Your task to perform on an android device: Clear the cart on walmart.com. Search for bose soundsport free on walmart.com, select the first entry, and add it to the cart. Image 0: 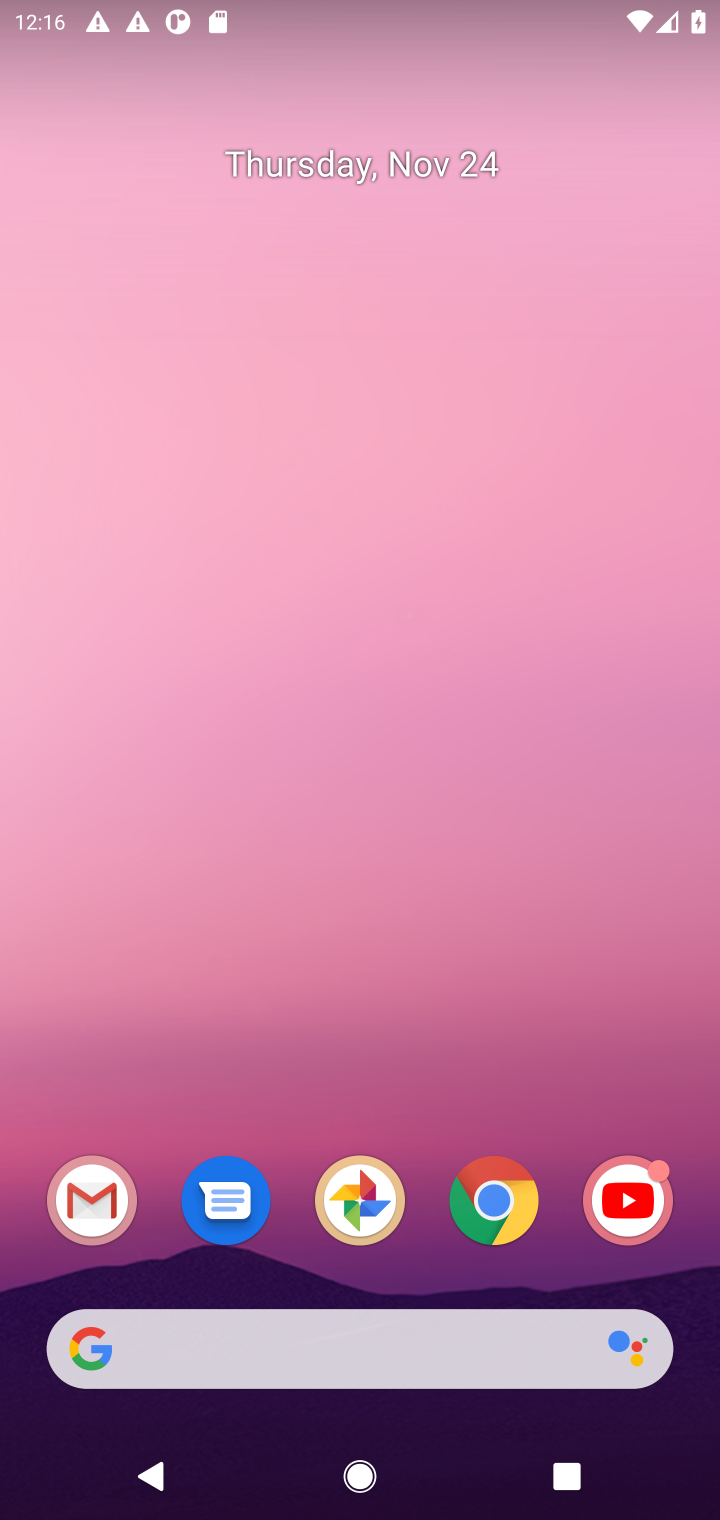
Step 0: click (359, 1318)
Your task to perform on an android device: Clear the cart on walmart.com. Search for bose soundsport free on walmart.com, select the first entry, and add it to the cart. Image 1: 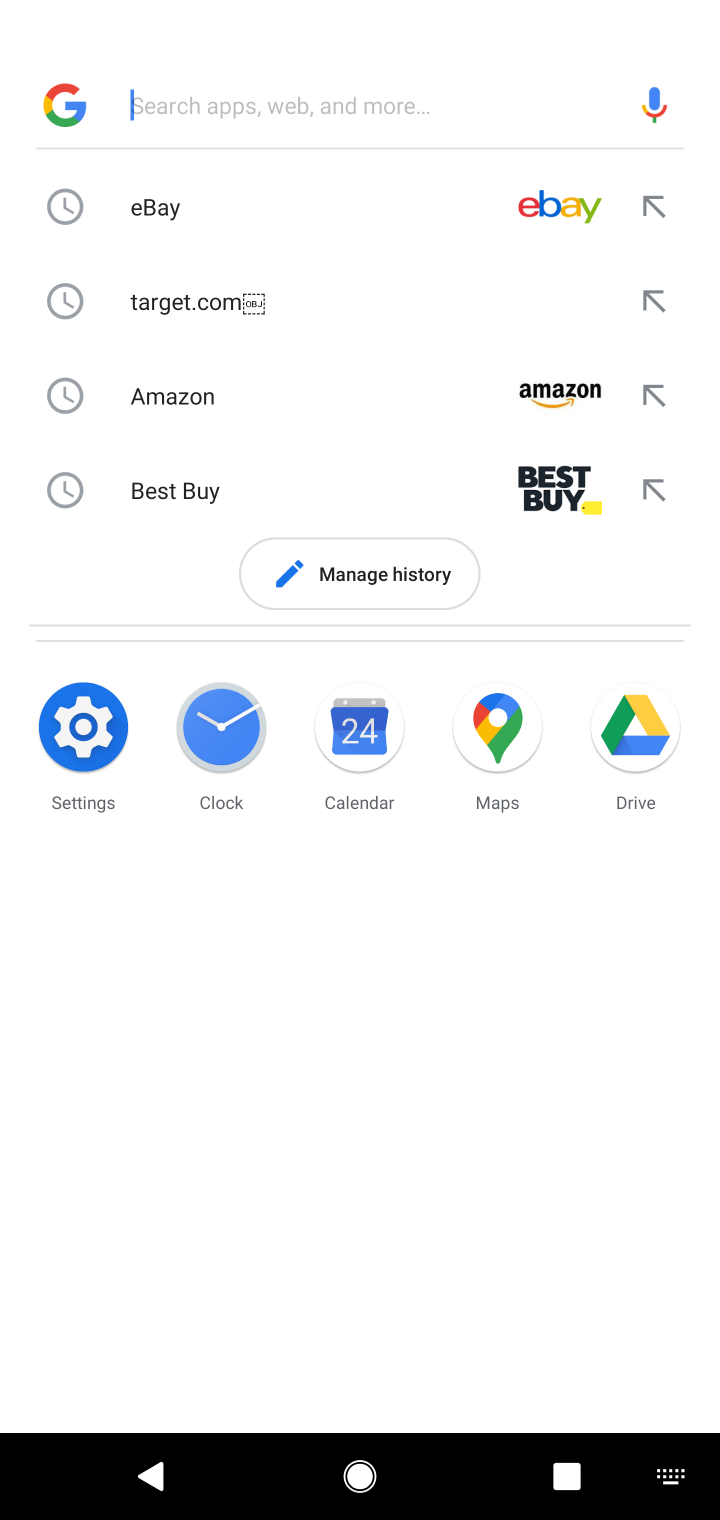
Step 1: type "walmart"
Your task to perform on an android device: Clear the cart on walmart.com. Search for bose soundsport free on walmart.com, select the first entry, and add it to the cart. Image 2: 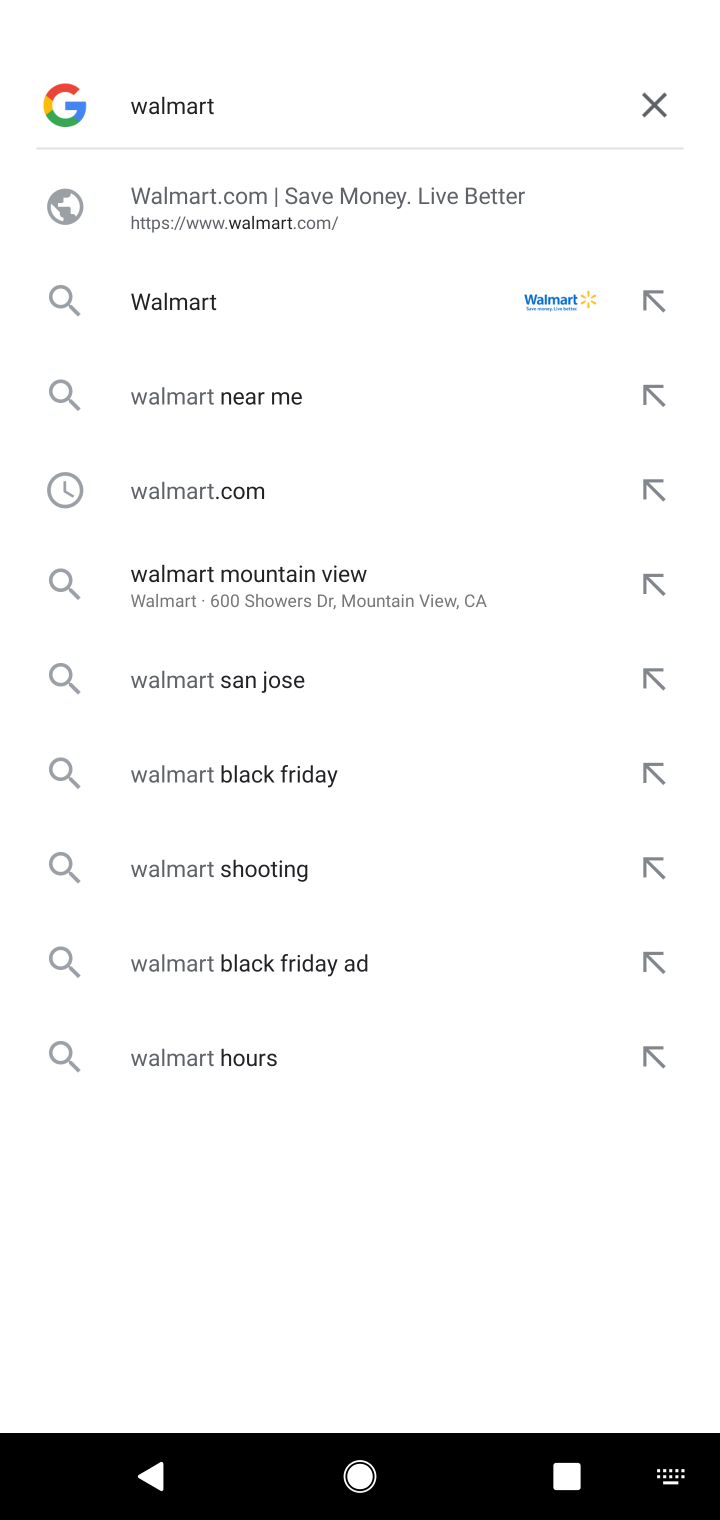
Step 2: click (396, 209)
Your task to perform on an android device: Clear the cart on walmart.com. Search for bose soundsport free on walmart.com, select the first entry, and add it to the cart. Image 3: 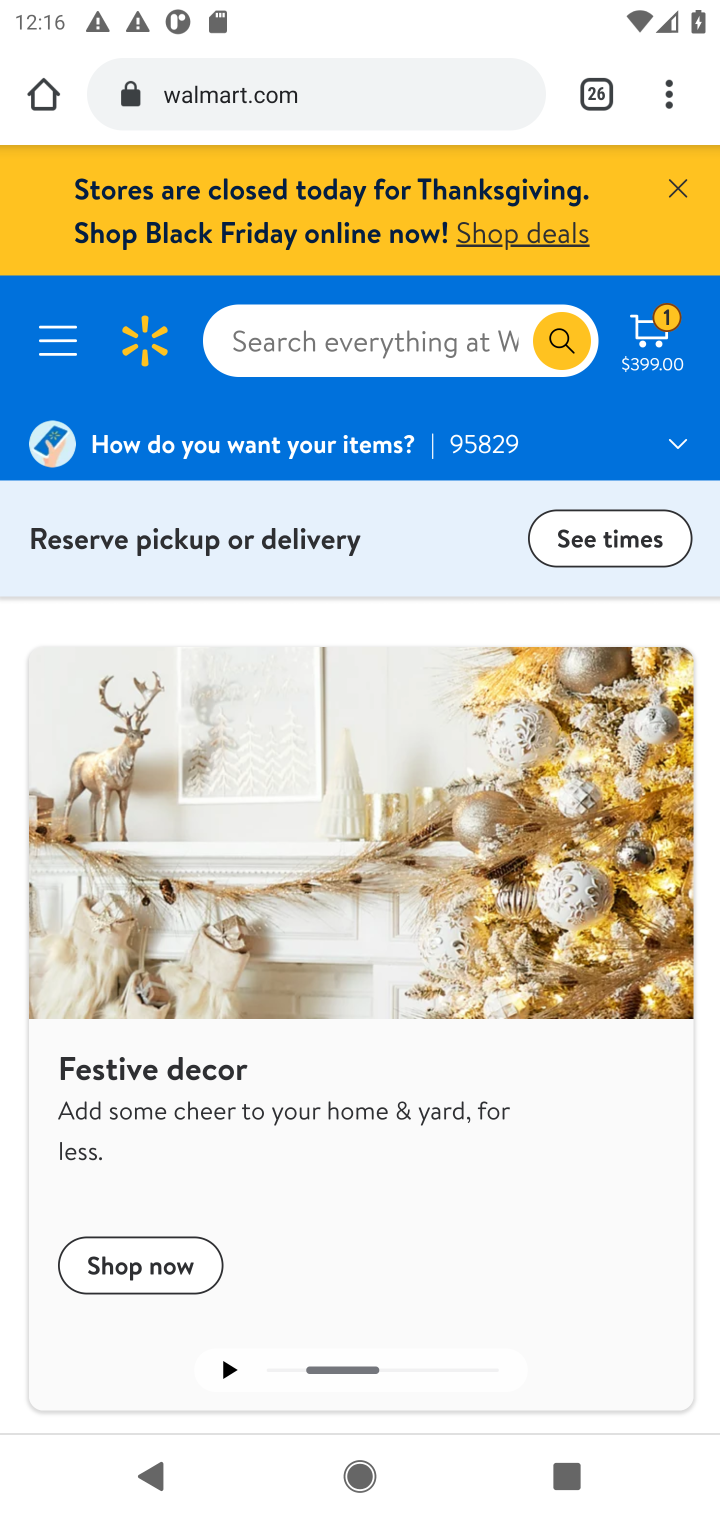
Step 3: click (248, 347)
Your task to perform on an android device: Clear the cart on walmart.com. Search for bose soundsport free on walmart.com, select the first entry, and add it to the cart. Image 4: 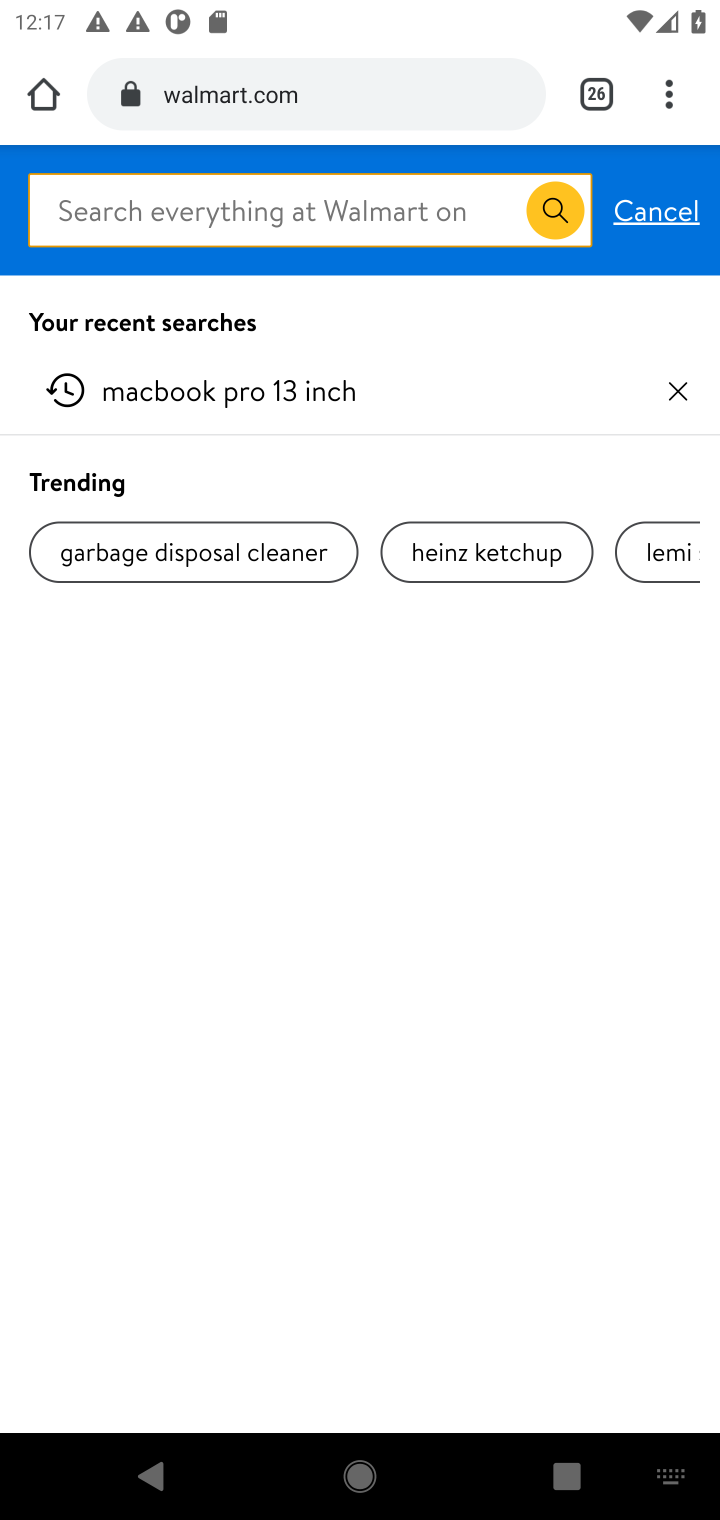
Step 4: type "bose soundsport free"
Your task to perform on an android device: Clear the cart on walmart.com. Search for bose soundsport free on walmart.com, select the first entry, and add it to the cart. Image 5: 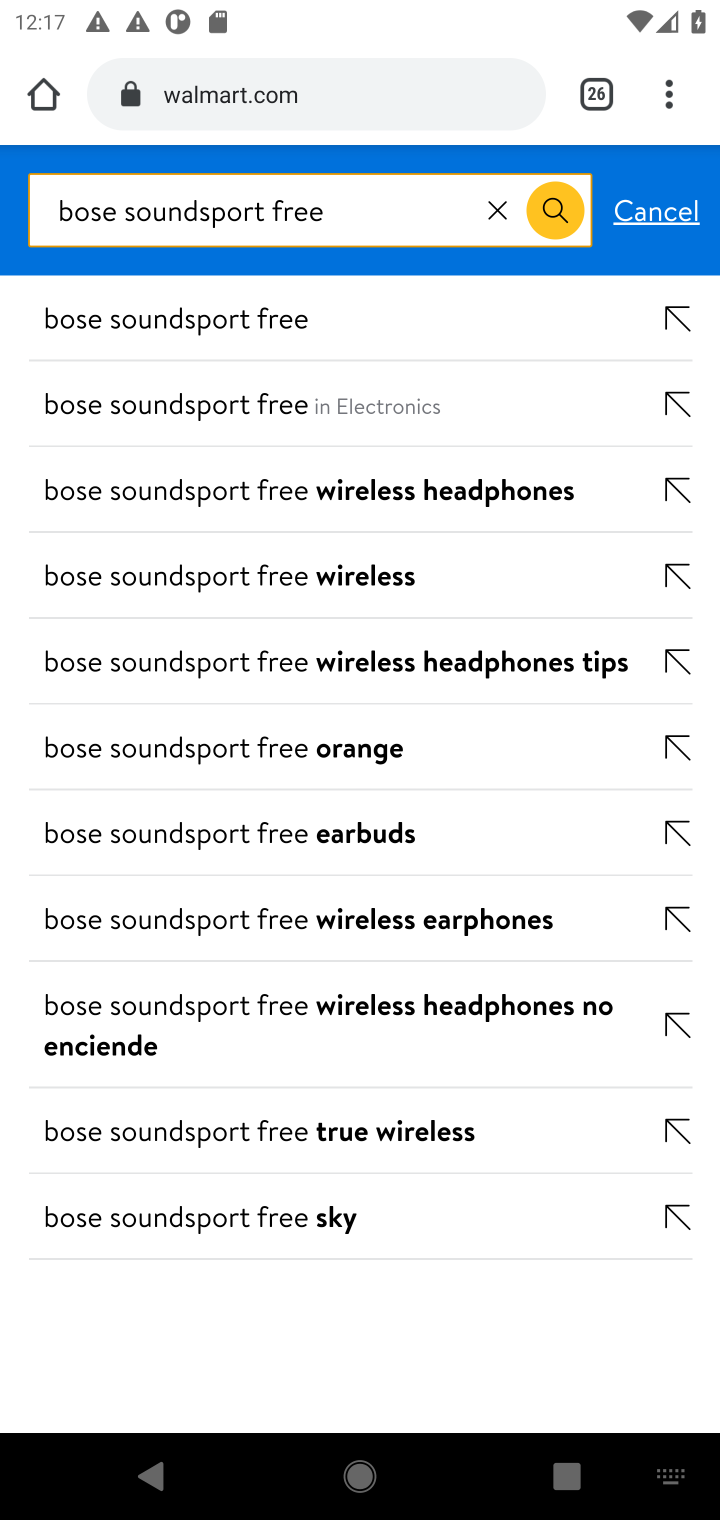
Step 5: click (68, 344)
Your task to perform on an android device: Clear the cart on walmart.com. Search for bose soundsport free on walmart.com, select the first entry, and add it to the cart. Image 6: 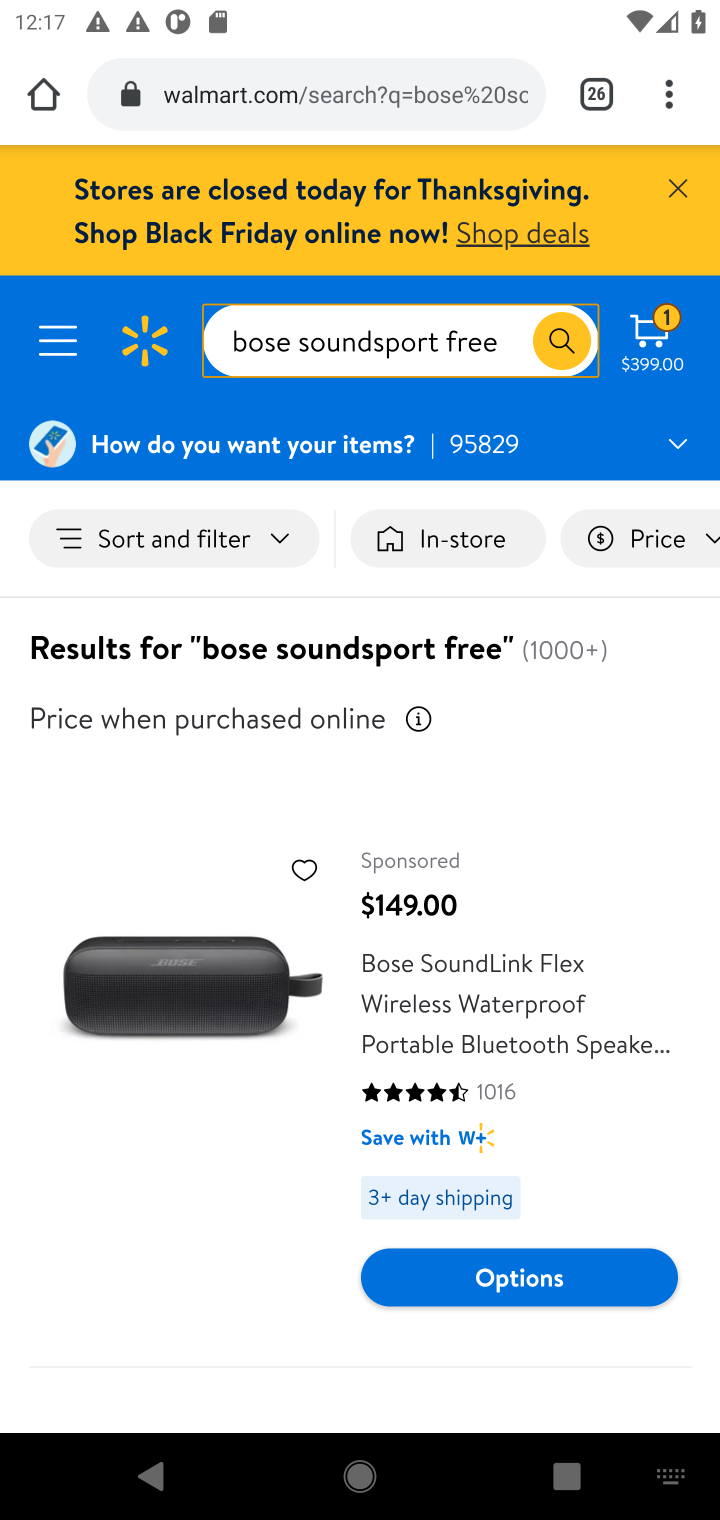
Step 6: click (508, 1299)
Your task to perform on an android device: Clear the cart on walmart.com. Search for bose soundsport free on walmart.com, select the first entry, and add it to the cart. Image 7: 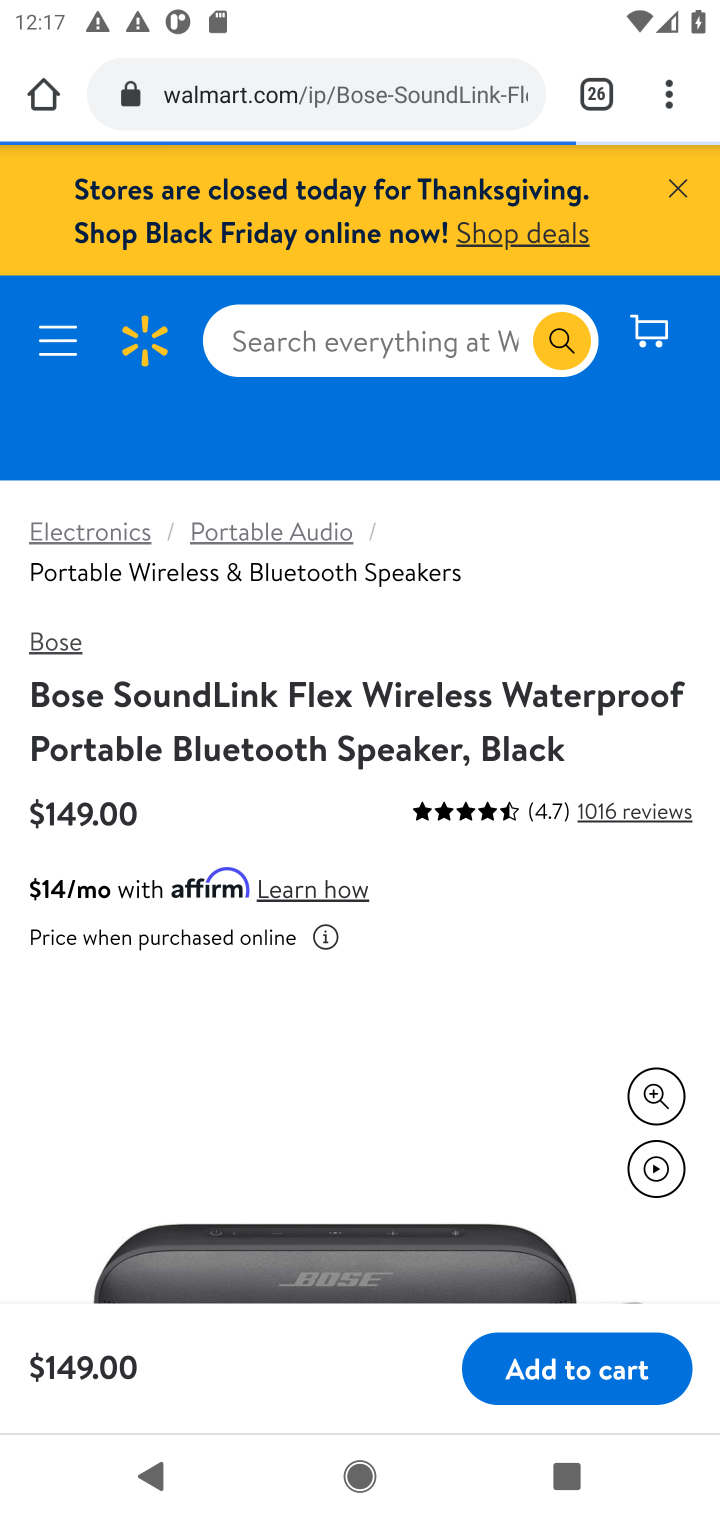
Step 7: task complete